Your task to perform on an android device: Open calendar and show me the first week of next month Image 0: 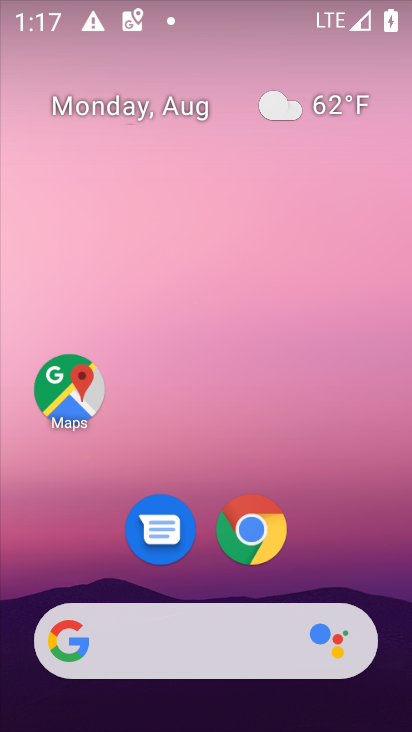
Step 0: drag from (210, 603) to (204, 290)
Your task to perform on an android device: Open calendar and show me the first week of next month Image 1: 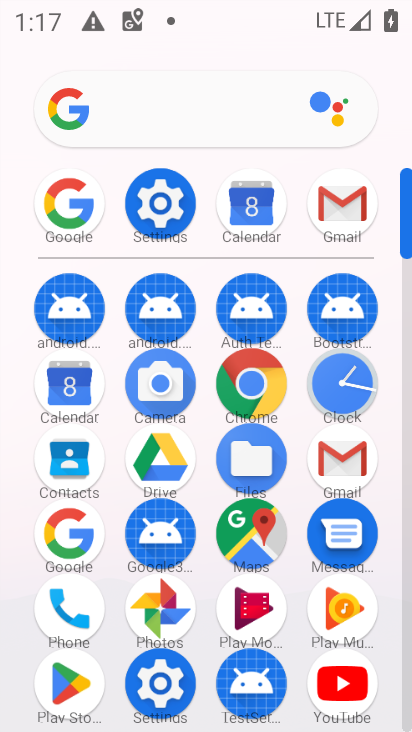
Step 1: click (72, 401)
Your task to perform on an android device: Open calendar and show me the first week of next month Image 2: 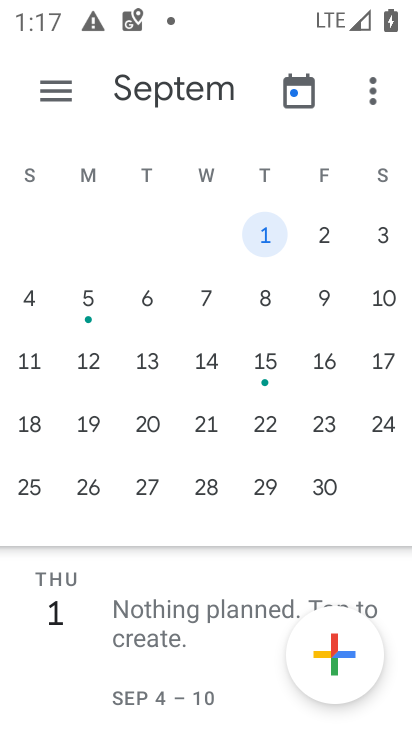
Step 2: click (272, 238)
Your task to perform on an android device: Open calendar and show me the first week of next month Image 3: 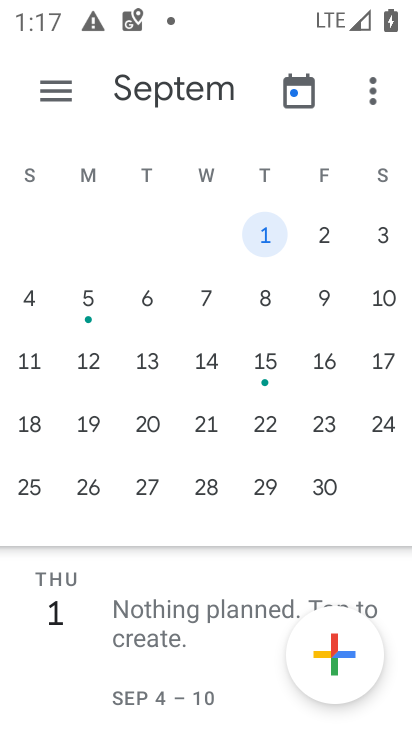
Step 3: task complete